Your task to perform on an android device: Open the stopwatch Image 0: 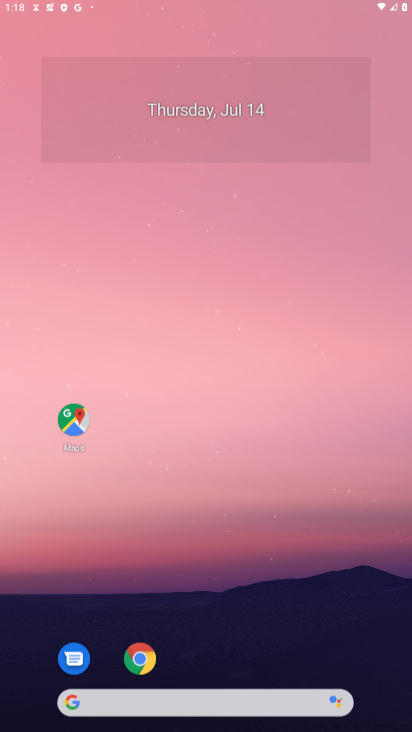
Step 0: click (199, 161)
Your task to perform on an android device: Open the stopwatch Image 1: 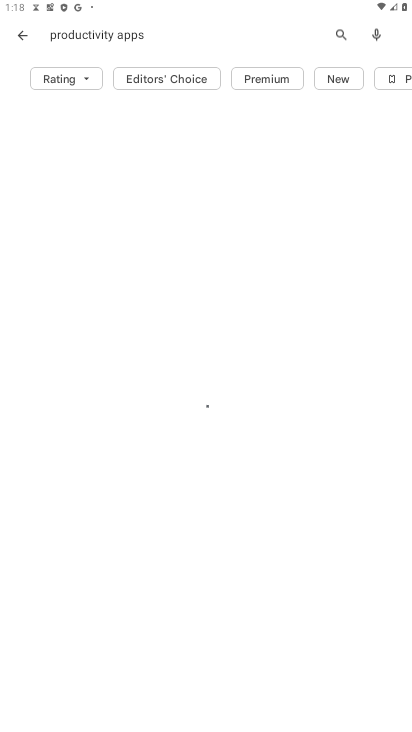
Step 1: drag from (53, 639) to (313, 140)
Your task to perform on an android device: Open the stopwatch Image 2: 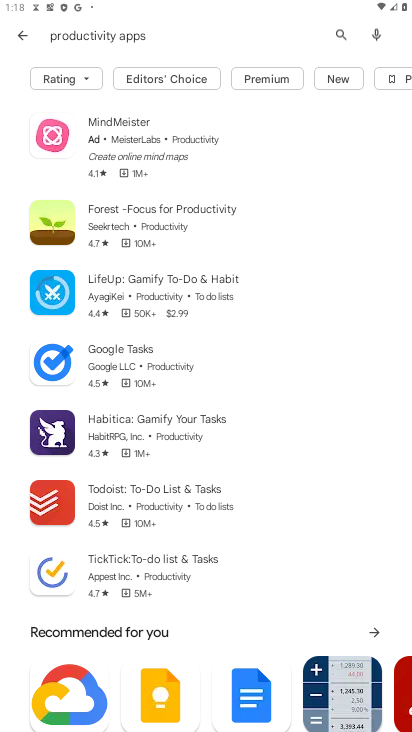
Step 2: press home button
Your task to perform on an android device: Open the stopwatch Image 3: 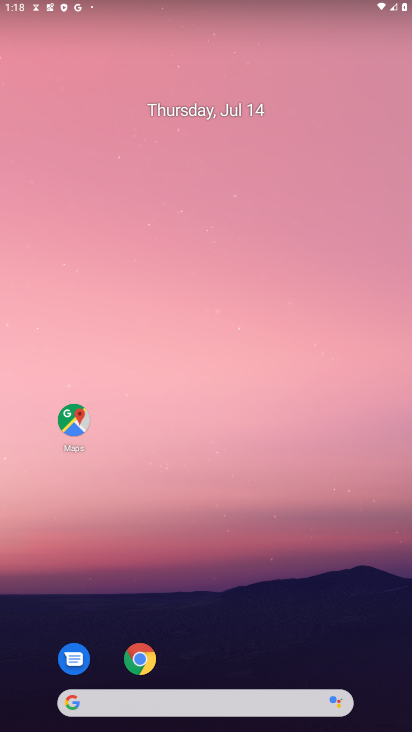
Step 3: drag from (63, 628) to (333, 0)
Your task to perform on an android device: Open the stopwatch Image 4: 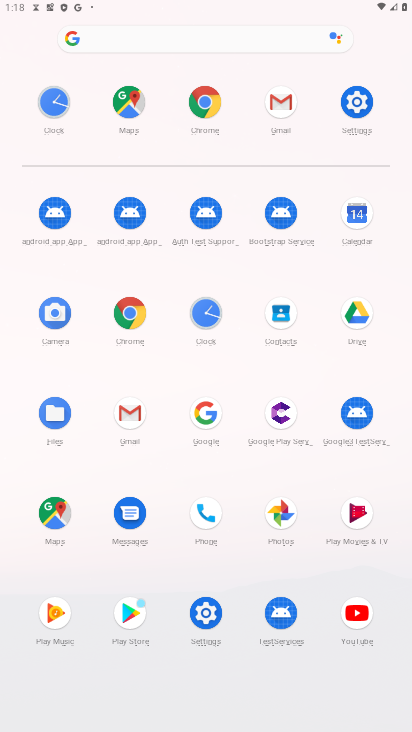
Step 4: click (211, 324)
Your task to perform on an android device: Open the stopwatch Image 5: 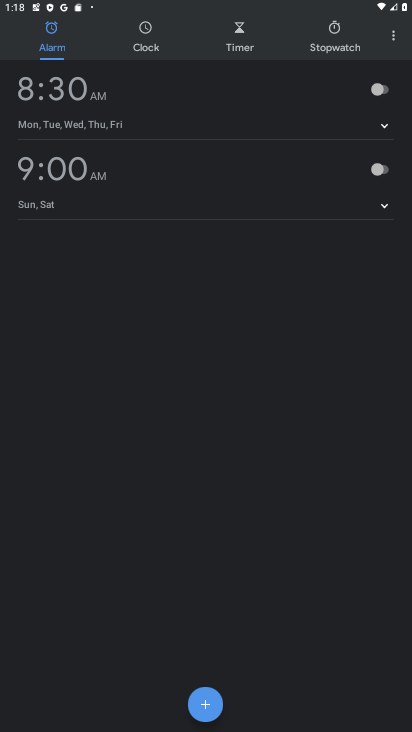
Step 5: click (325, 29)
Your task to perform on an android device: Open the stopwatch Image 6: 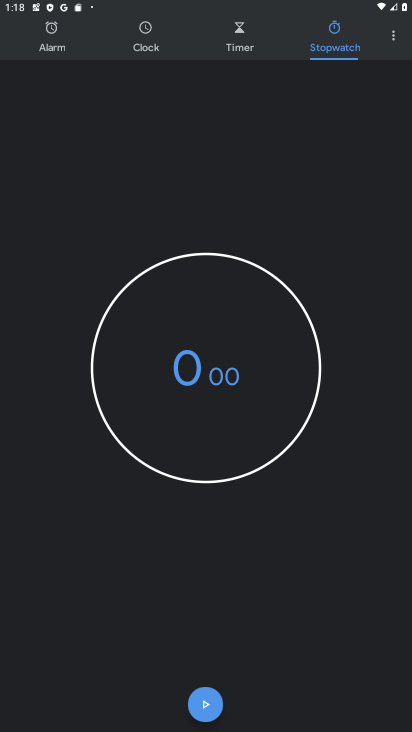
Step 6: task complete